Your task to perform on an android device: toggle notification dots Image 0: 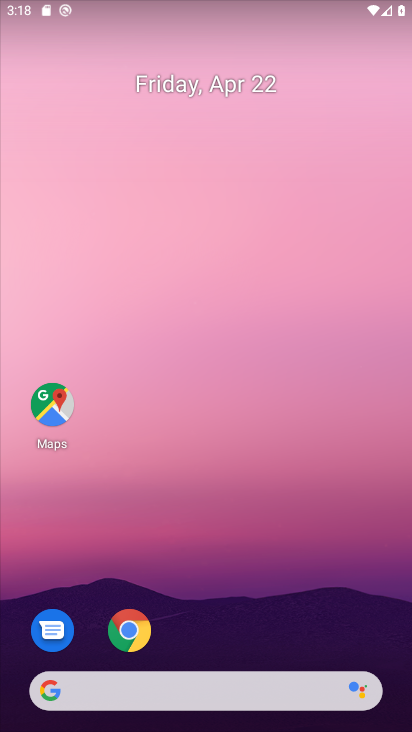
Step 0: drag from (258, 615) to (257, 44)
Your task to perform on an android device: toggle notification dots Image 1: 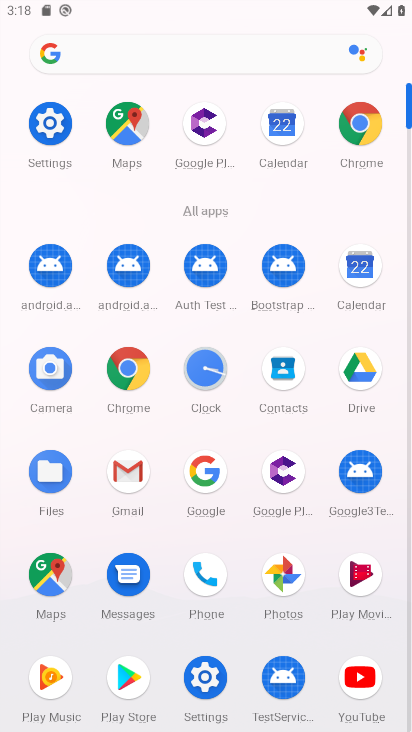
Step 1: click (49, 122)
Your task to perform on an android device: toggle notification dots Image 2: 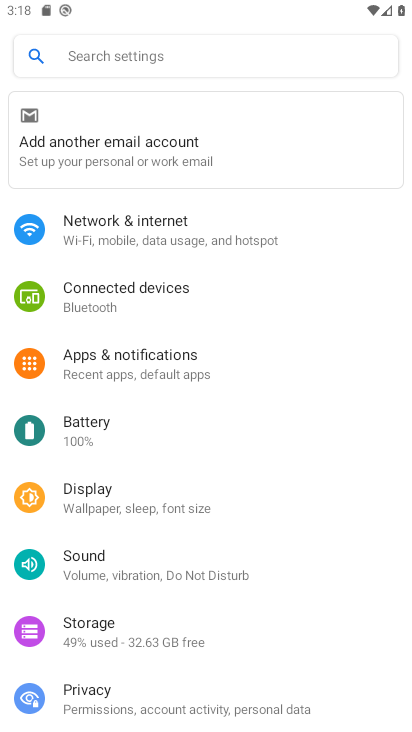
Step 2: click (229, 356)
Your task to perform on an android device: toggle notification dots Image 3: 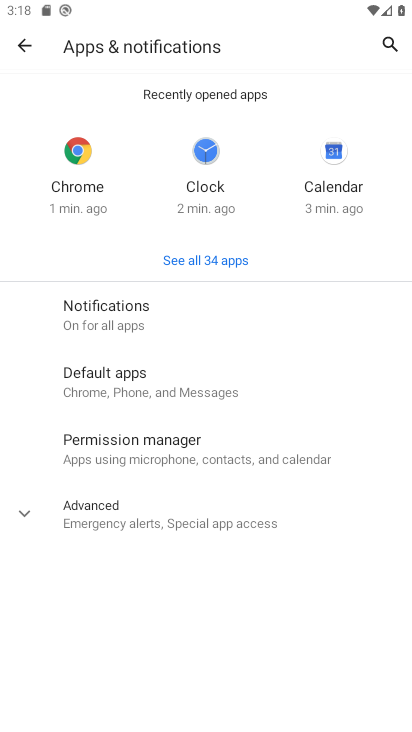
Step 3: click (143, 328)
Your task to perform on an android device: toggle notification dots Image 4: 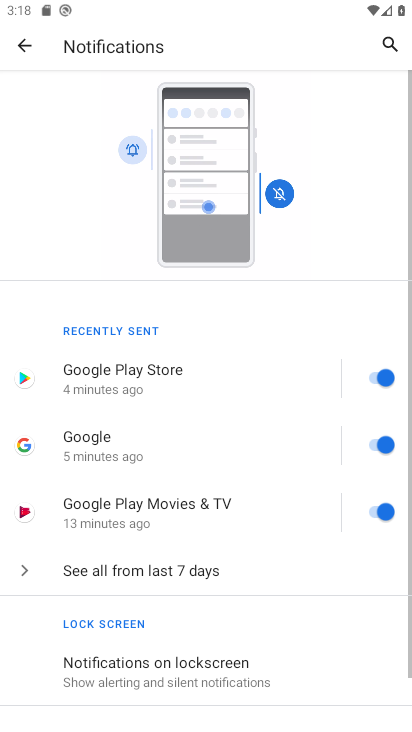
Step 4: drag from (160, 650) to (227, 289)
Your task to perform on an android device: toggle notification dots Image 5: 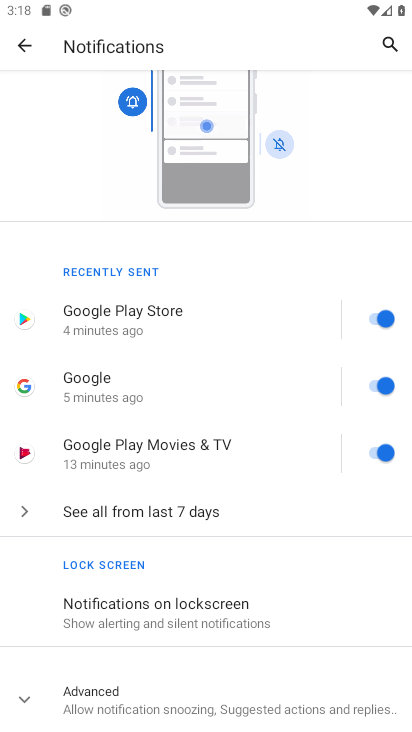
Step 5: click (176, 694)
Your task to perform on an android device: toggle notification dots Image 6: 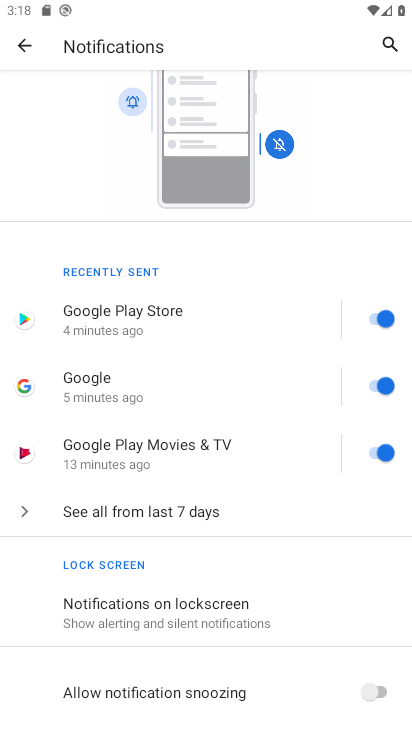
Step 6: drag from (180, 676) to (218, 230)
Your task to perform on an android device: toggle notification dots Image 7: 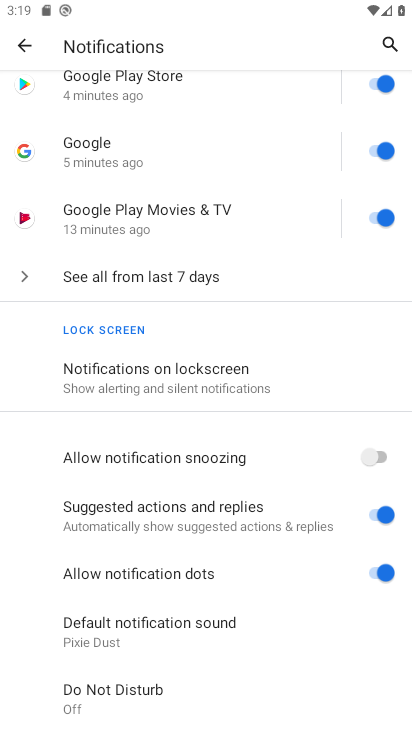
Step 7: click (374, 563)
Your task to perform on an android device: toggle notification dots Image 8: 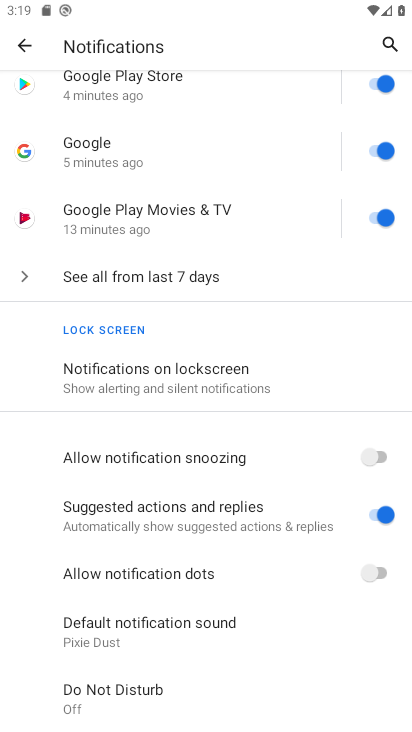
Step 8: task complete